Your task to perform on an android device: Go to Maps Image 0: 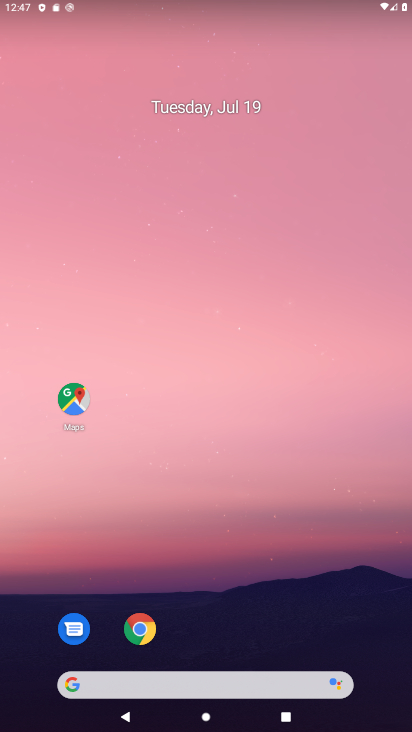
Step 0: click (75, 403)
Your task to perform on an android device: Go to Maps Image 1: 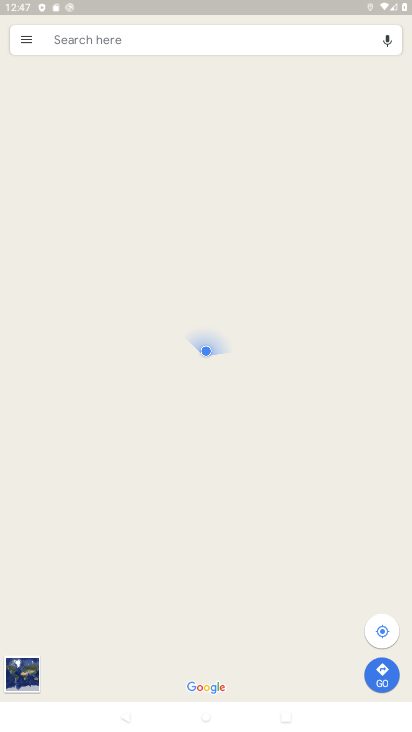
Step 1: task complete